Your task to perform on an android device: read, delete, or share a saved page in the chrome app Image 0: 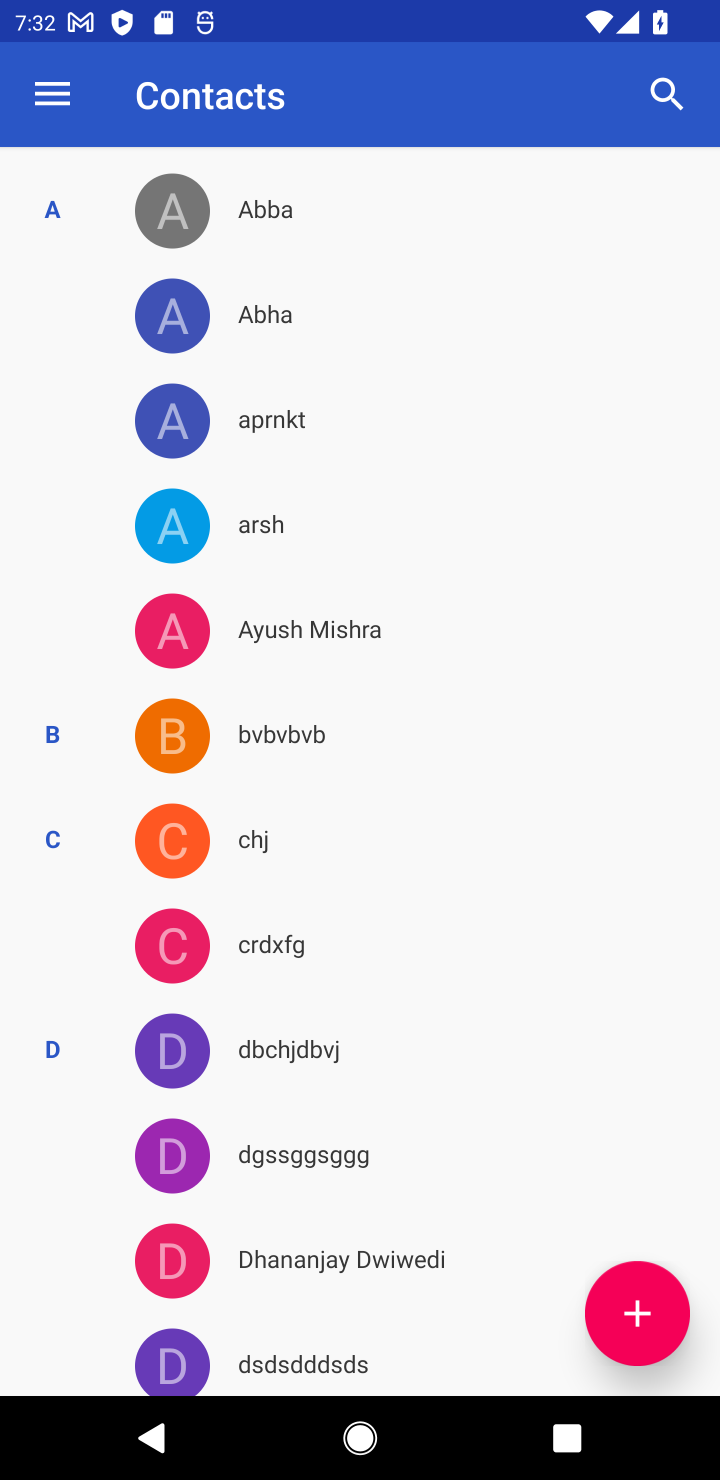
Step 0: press home button
Your task to perform on an android device: read, delete, or share a saved page in the chrome app Image 1: 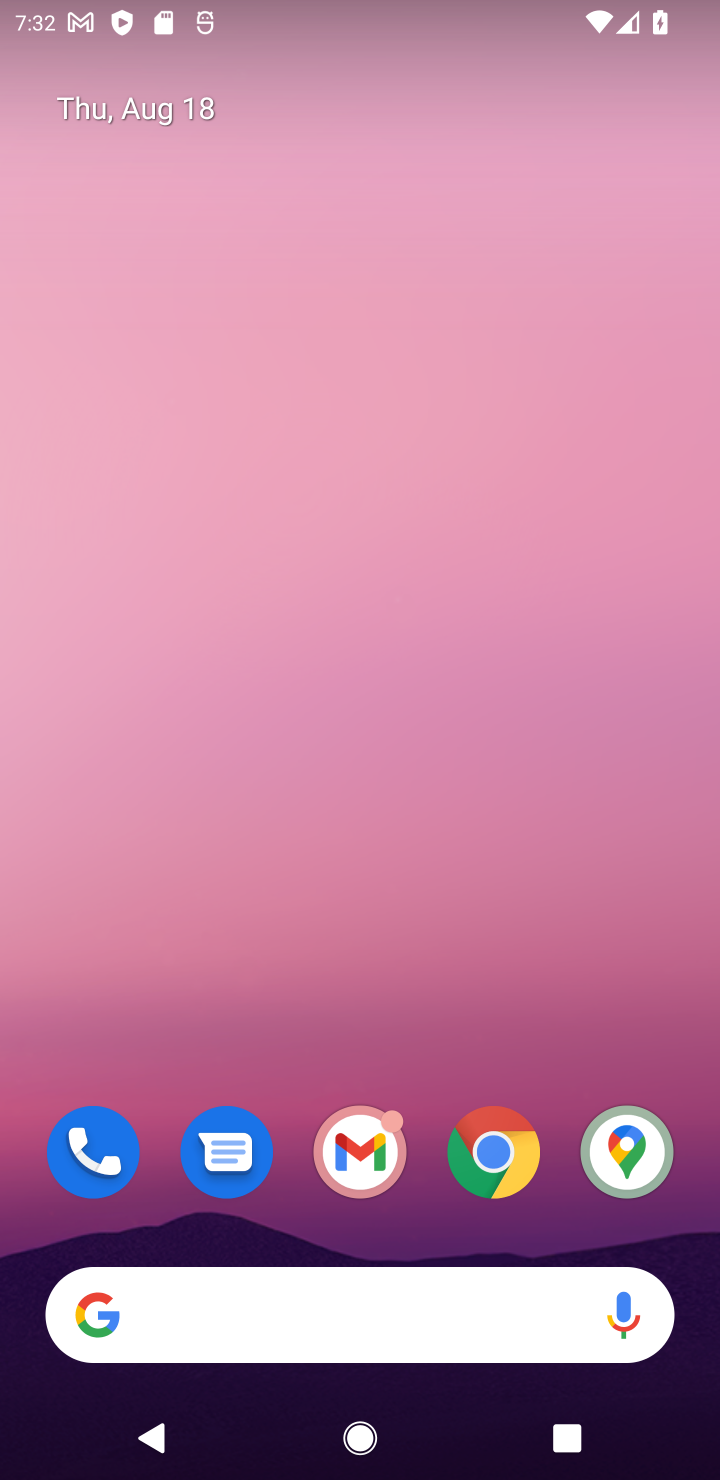
Step 1: click (500, 1192)
Your task to perform on an android device: read, delete, or share a saved page in the chrome app Image 2: 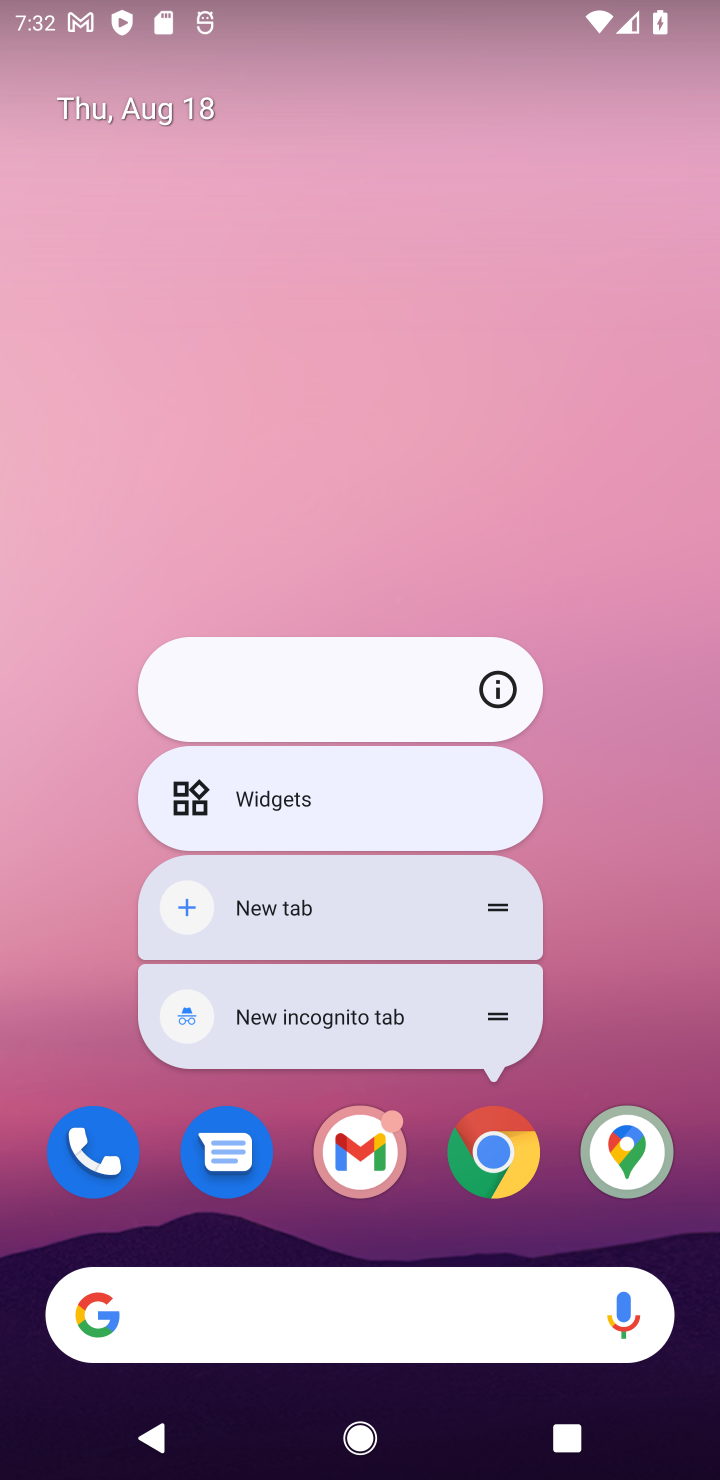
Step 2: click (510, 1159)
Your task to perform on an android device: read, delete, or share a saved page in the chrome app Image 3: 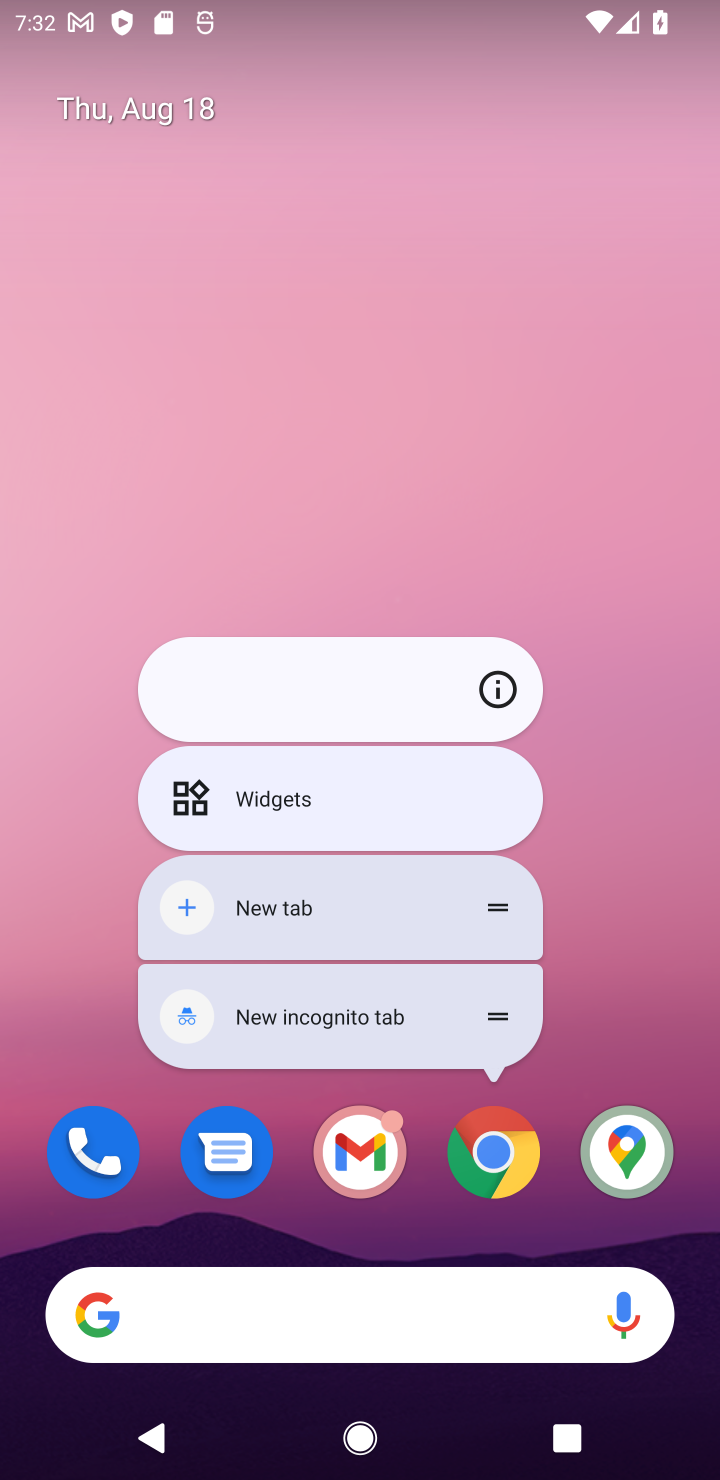
Step 3: click (507, 1151)
Your task to perform on an android device: read, delete, or share a saved page in the chrome app Image 4: 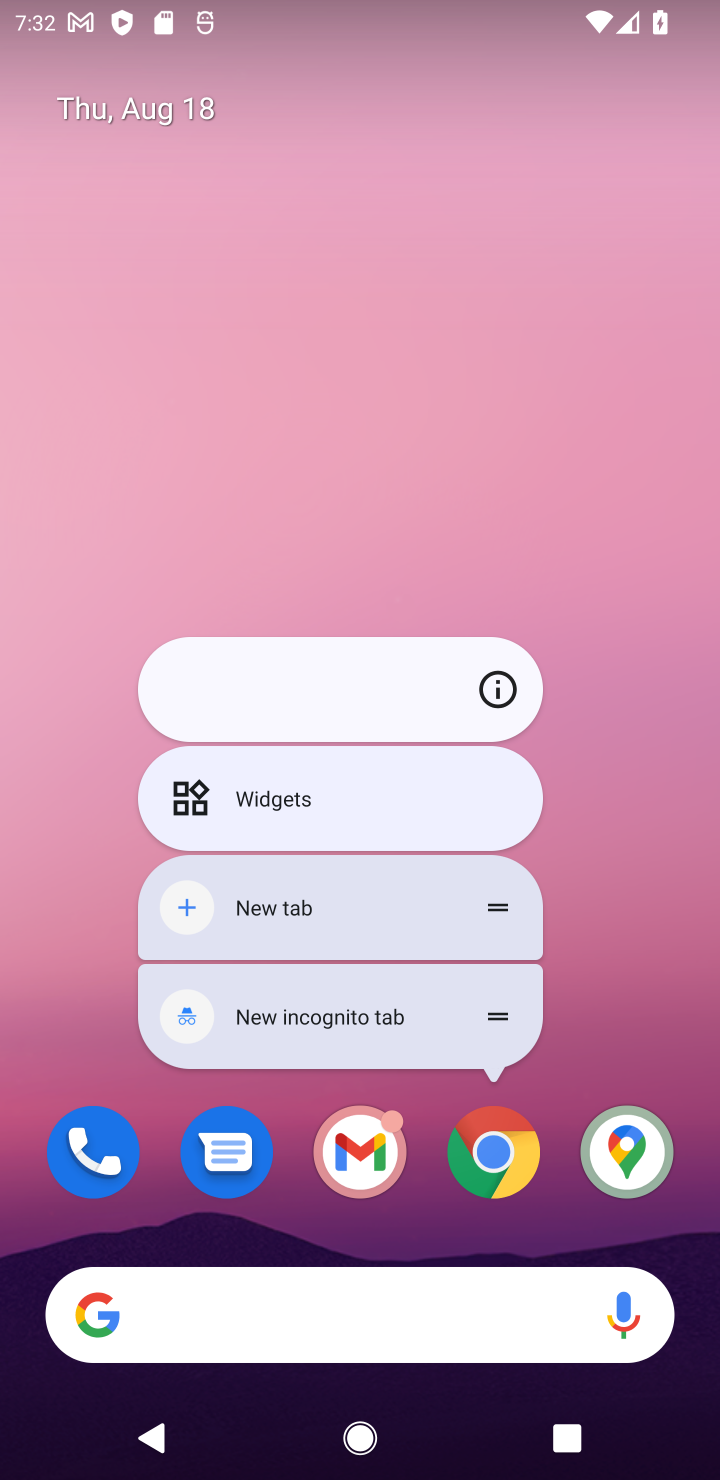
Step 4: click (506, 1151)
Your task to perform on an android device: read, delete, or share a saved page in the chrome app Image 5: 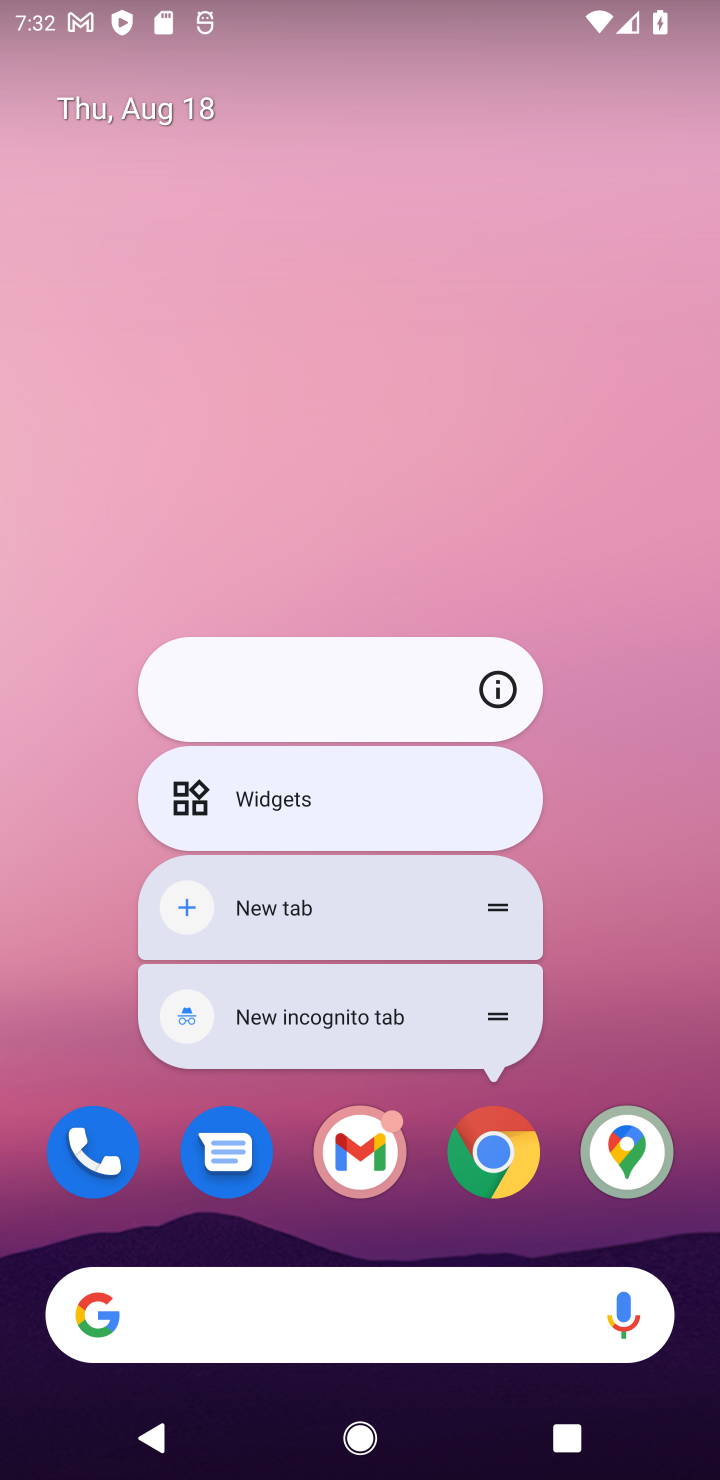
Step 5: click (502, 1164)
Your task to perform on an android device: read, delete, or share a saved page in the chrome app Image 6: 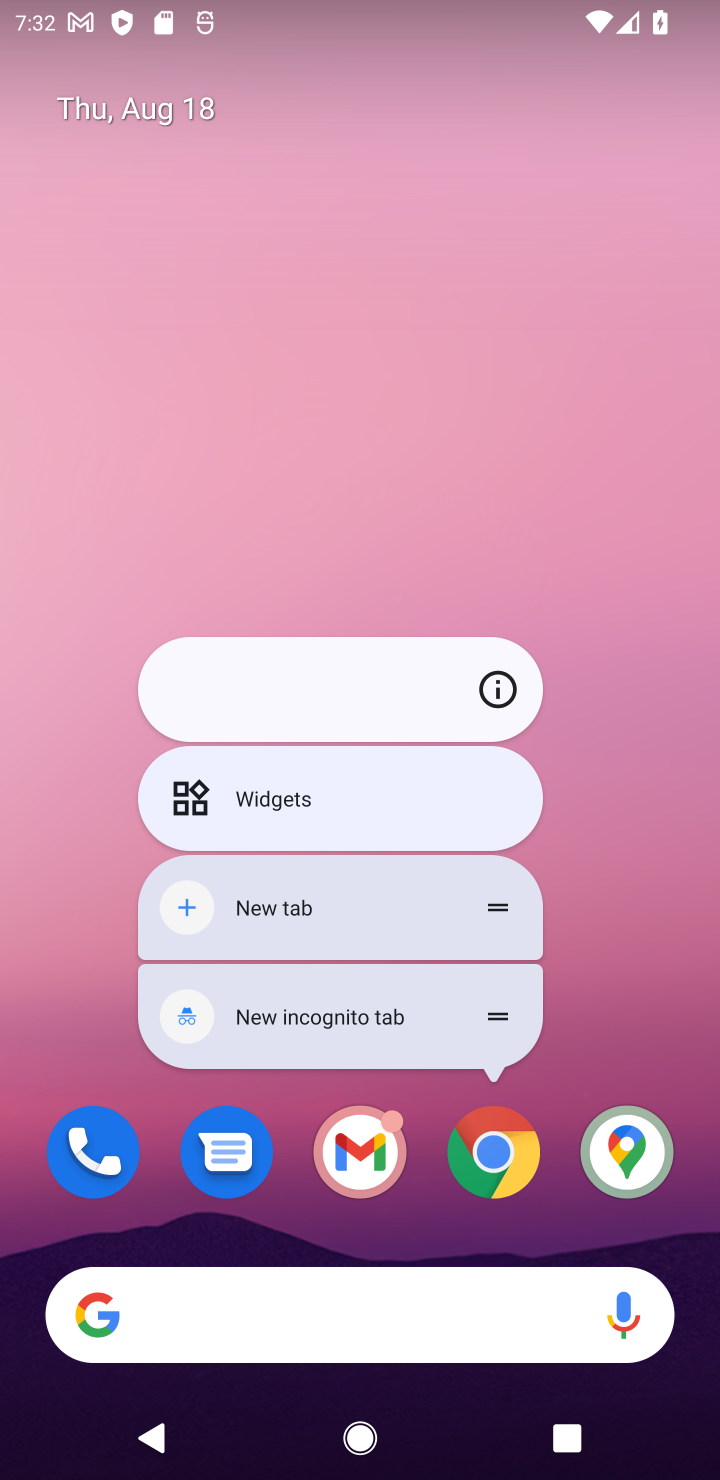
Step 6: click (502, 1164)
Your task to perform on an android device: read, delete, or share a saved page in the chrome app Image 7: 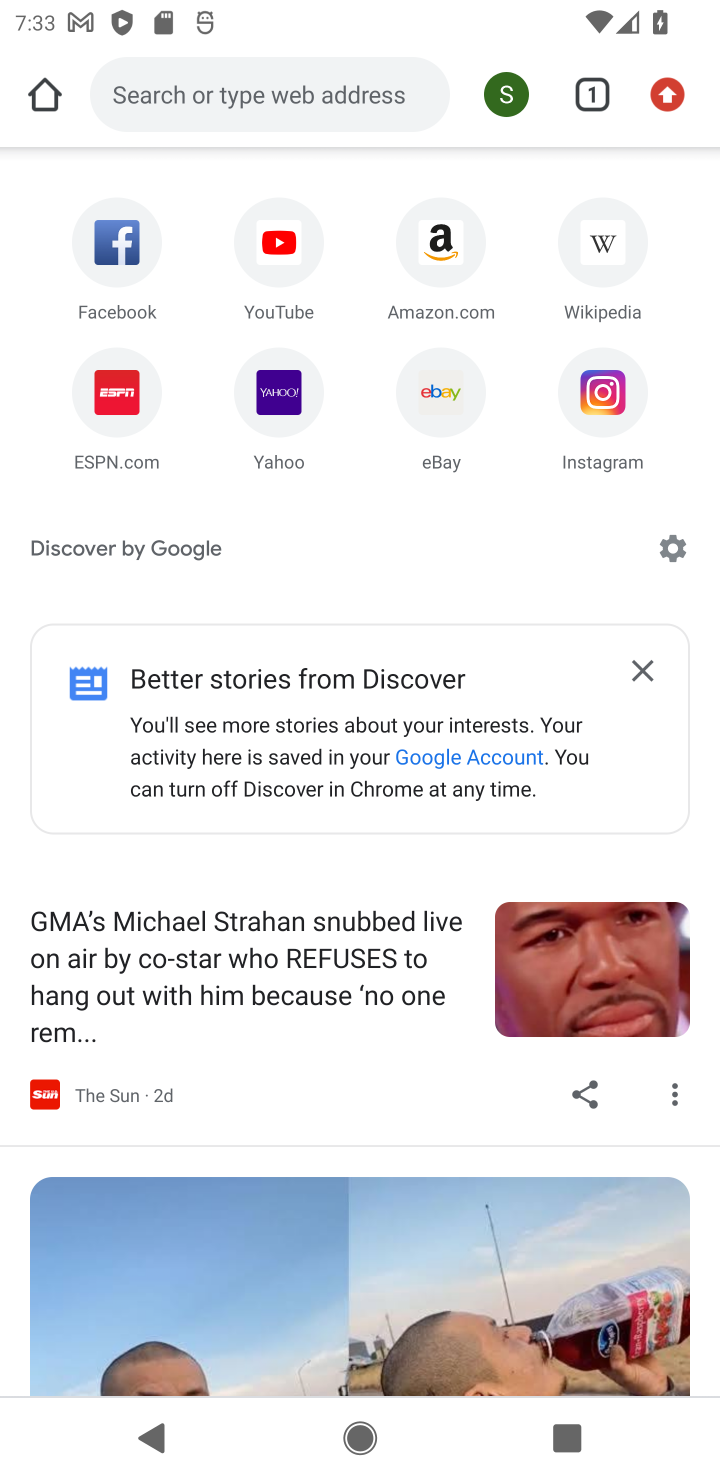
Step 7: task complete